Your task to perform on an android device: Open notification settings Image 0: 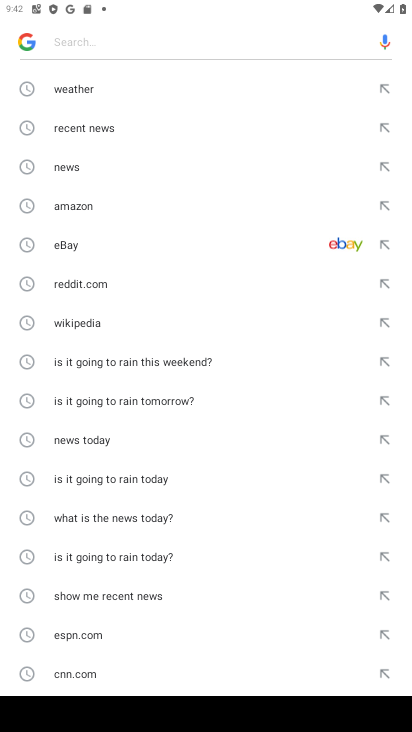
Step 0: press home button
Your task to perform on an android device: Open notification settings Image 1: 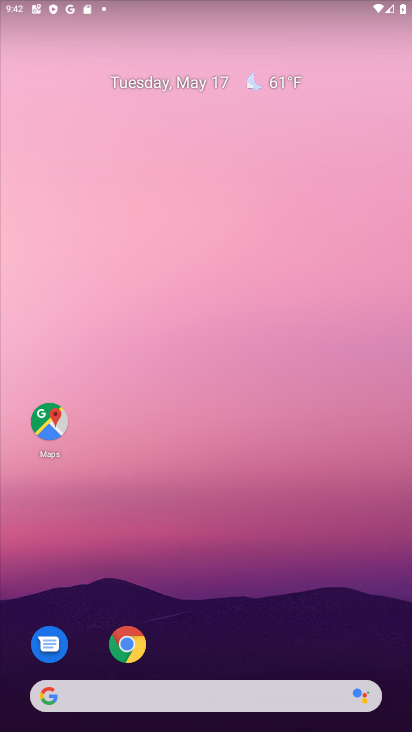
Step 1: drag from (176, 621) to (202, 91)
Your task to perform on an android device: Open notification settings Image 2: 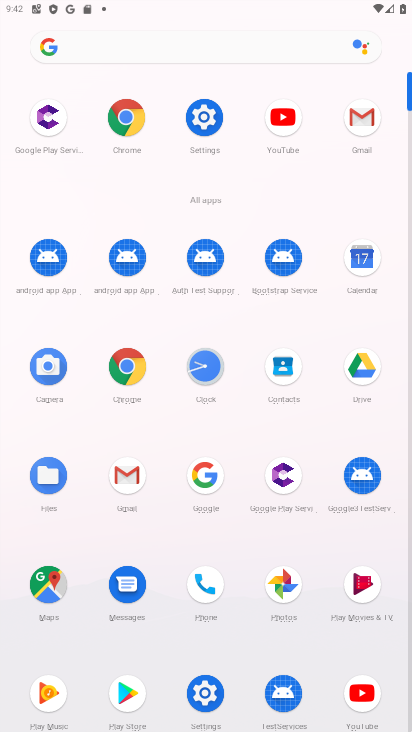
Step 2: click (205, 126)
Your task to perform on an android device: Open notification settings Image 3: 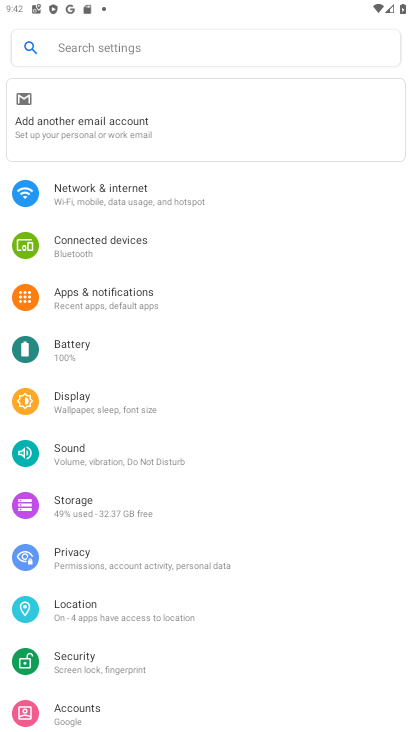
Step 3: click (172, 295)
Your task to perform on an android device: Open notification settings Image 4: 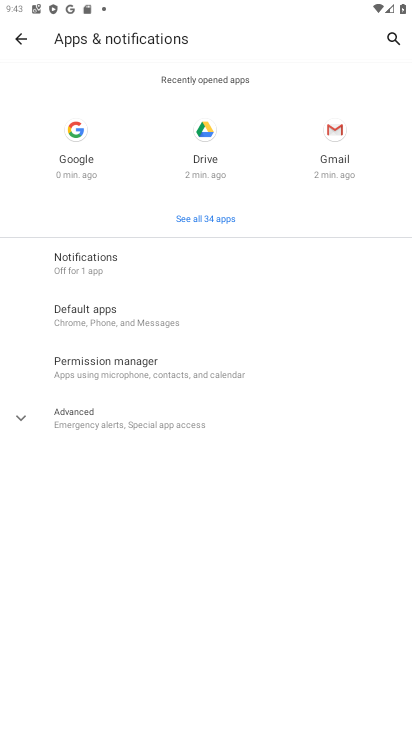
Step 4: click (110, 264)
Your task to perform on an android device: Open notification settings Image 5: 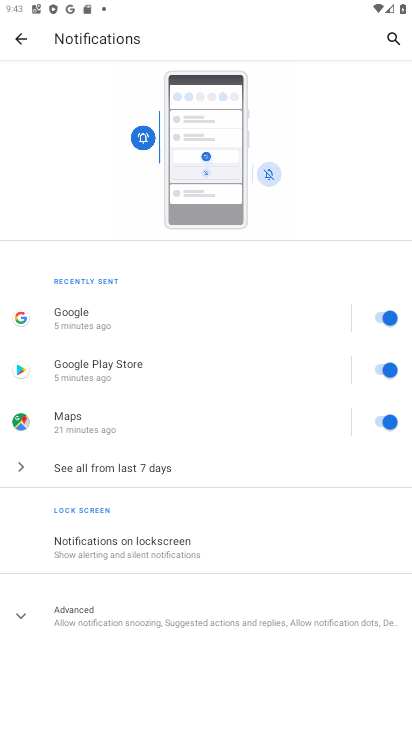
Step 5: task complete